Your task to perform on an android device: star an email in the gmail app Image 0: 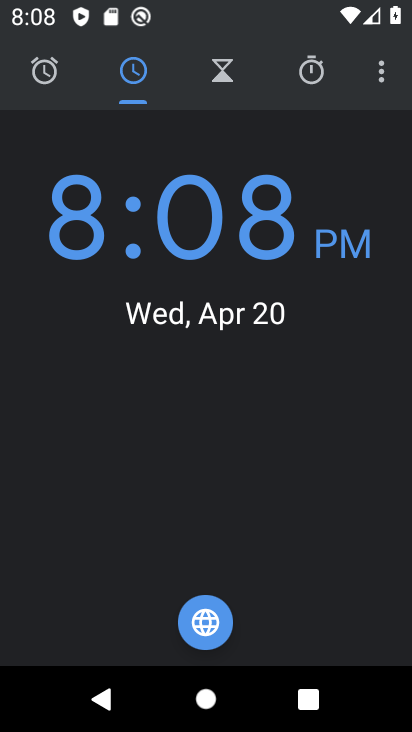
Step 0: press home button
Your task to perform on an android device: star an email in the gmail app Image 1: 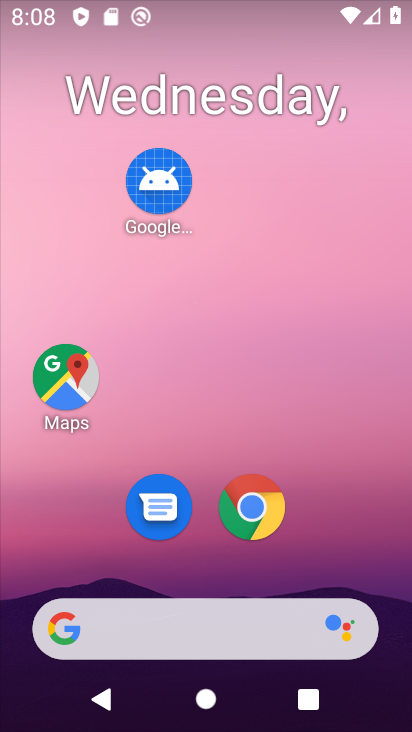
Step 1: drag from (235, 568) to (322, 3)
Your task to perform on an android device: star an email in the gmail app Image 2: 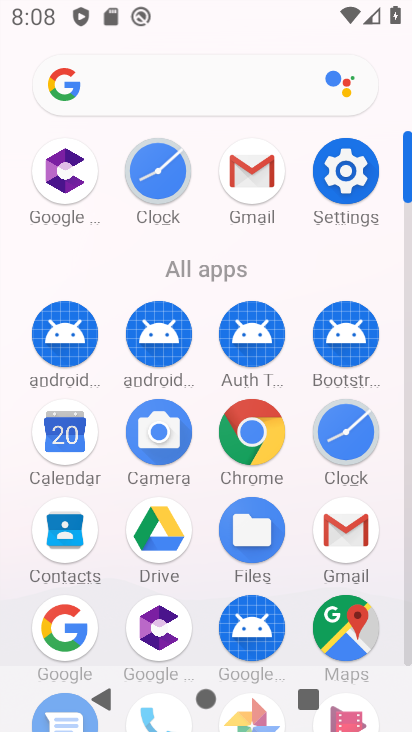
Step 2: click (347, 532)
Your task to perform on an android device: star an email in the gmail app Image 3: 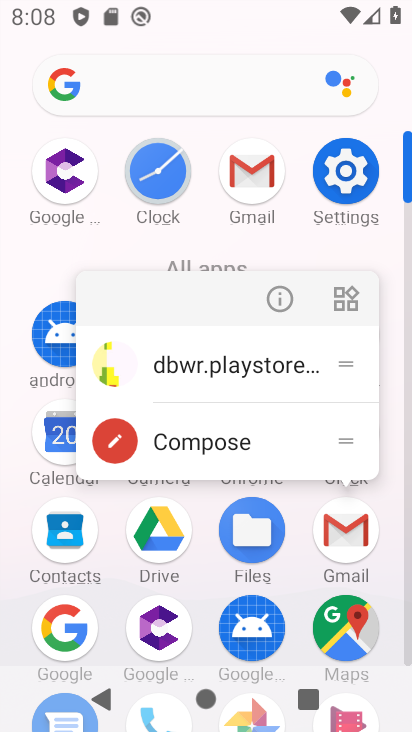
Step 3: click (342, 534)
Your task to perform on an android device: star an email in the gmail app Image 4: 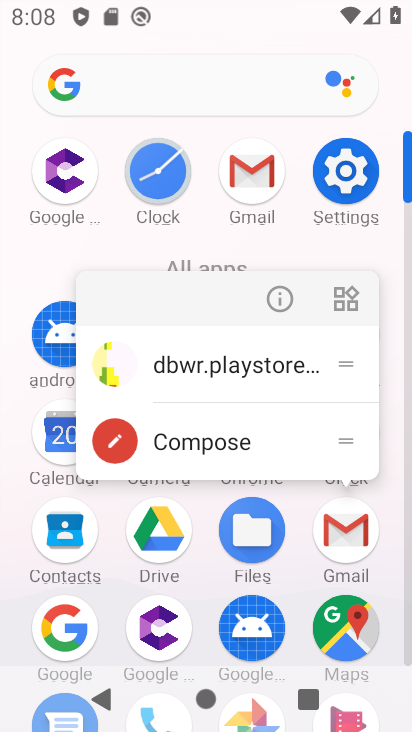
Step 4: click (341, 534)
Your task to perform on an android device: star an email in the gmail app Image 5: 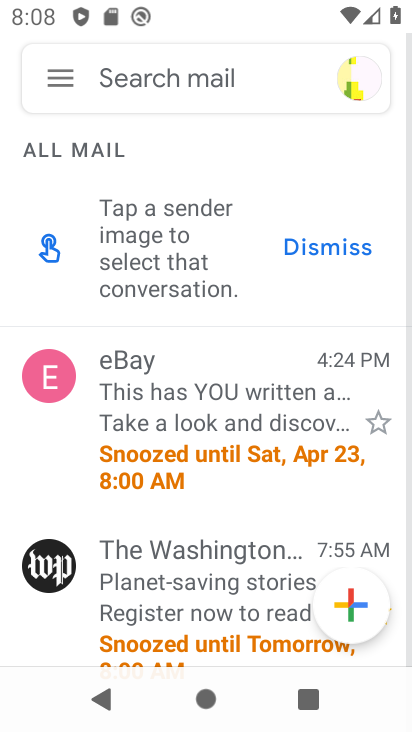
Step 5: click (369, 418)
Your task to perform on an android device: star an email in the gmail app Image 6: 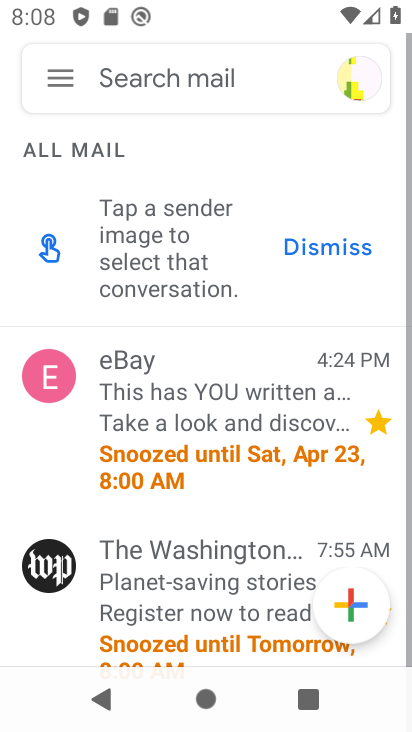
Step 6: task complete